Your task to perform on an android device: When is my next appointment? Image 0: 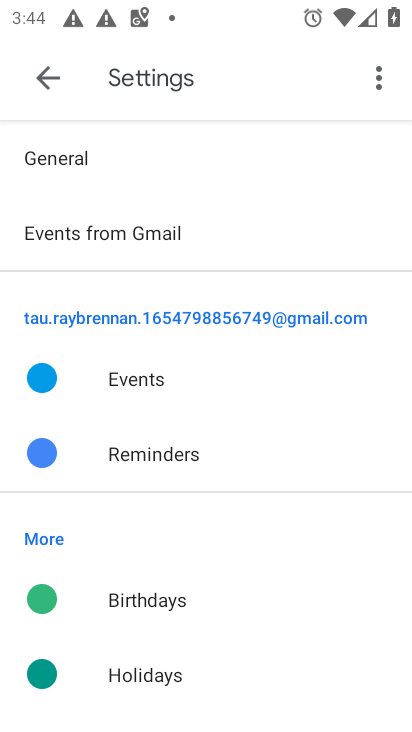
Step 0: press home button
Your task to perform on an android device: When is my next appointment? Image 1: 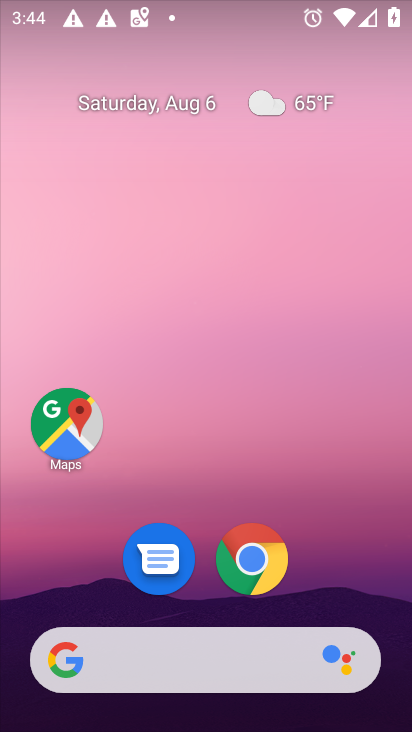
Step 1: drag from (220, 442) to (274, 0)
Your task to perform on an android device: When is my next appointment? Image 2: 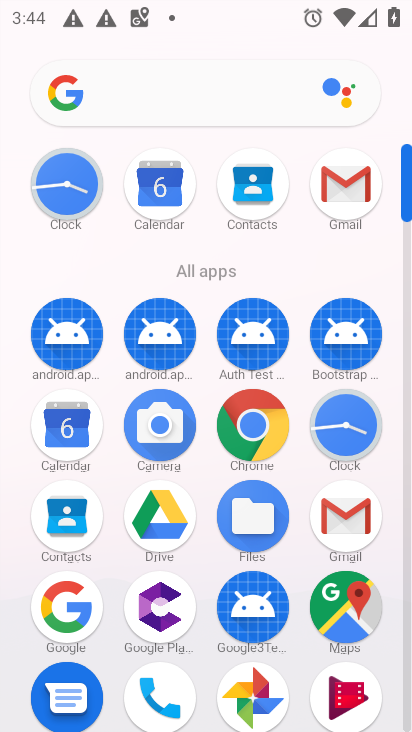
Step 2: click (75, 432)
Your task to perform on an android device: When is my next appointment? Image 3: 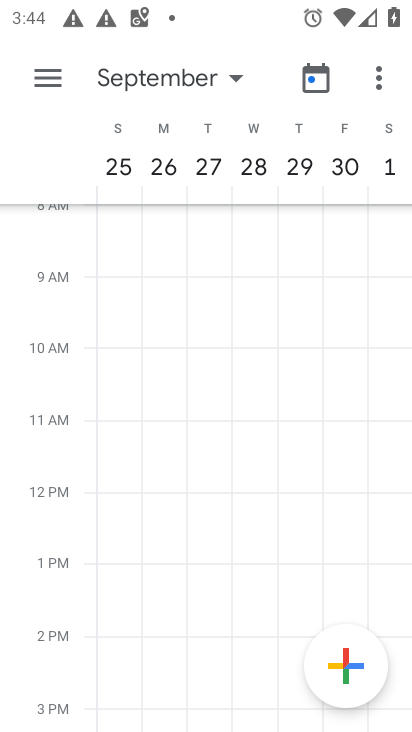
Step 3: drag from (130, 379) to (401, 451)
Your task to perform on an android device: When is my next appointment? Image 4: 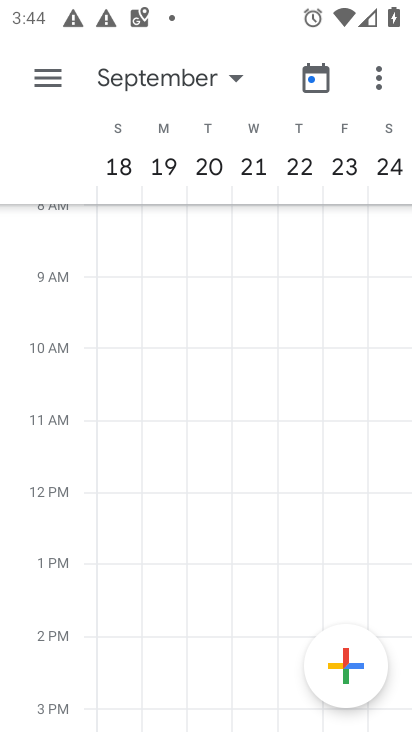
Step 4: drag from (126, 389) to (411, 436)
Your task to perform on an android device: When is my next appointment? Image 5: 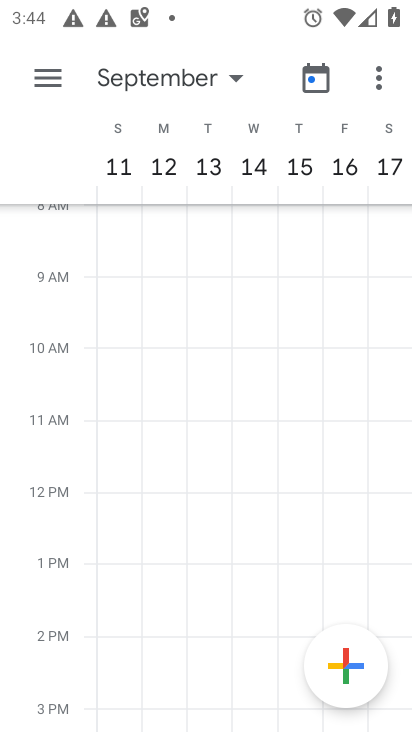
Step 5: drag from (109, 367) to (409, 411)
Your task to perform on an android device: When is my next appointment? Image 6: 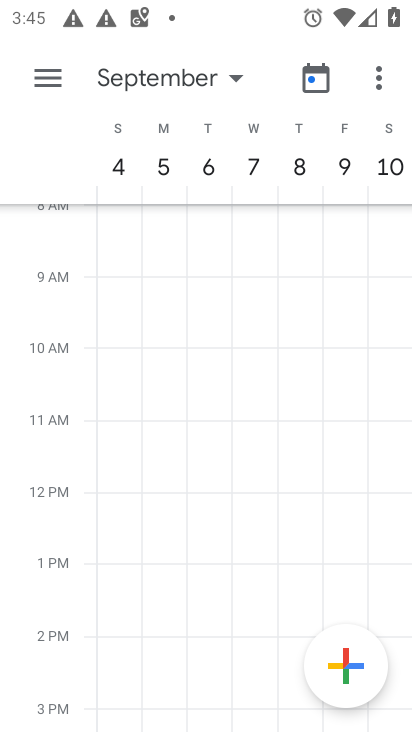
Step 6: drag from (113, 368) to (410, 399)
Your task to perform on an android device: When is my next appointment? Image 7: 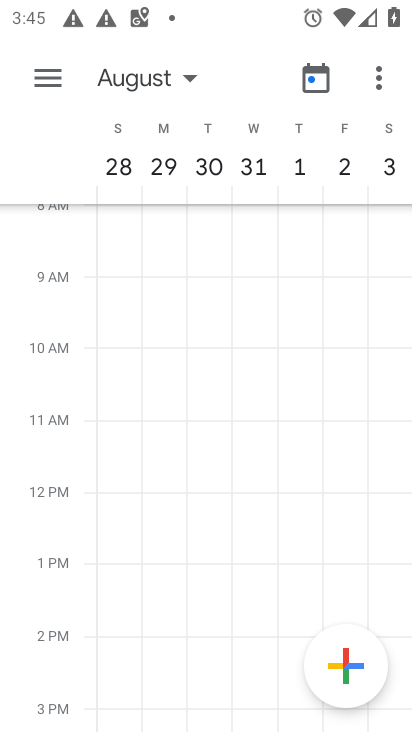
Step 7: drag from (115, 359) to (401, 401)
Your task to perform on an android device: When is my next appointment? Image 8: 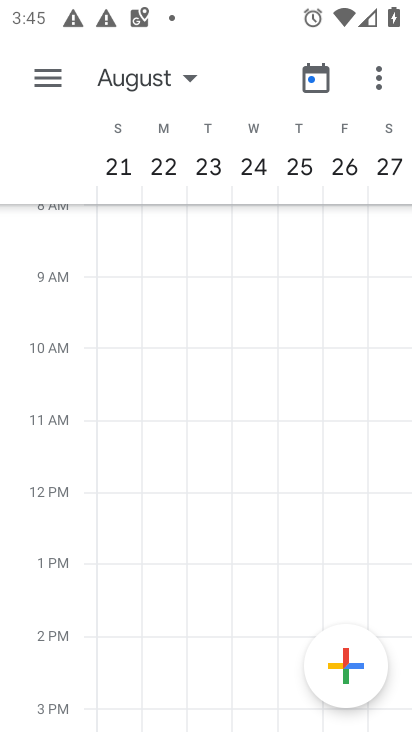
Step 8: drag from (120, 399) to (411, 398)
Your task to perform on an android device: When is my next appointment? Image 9: 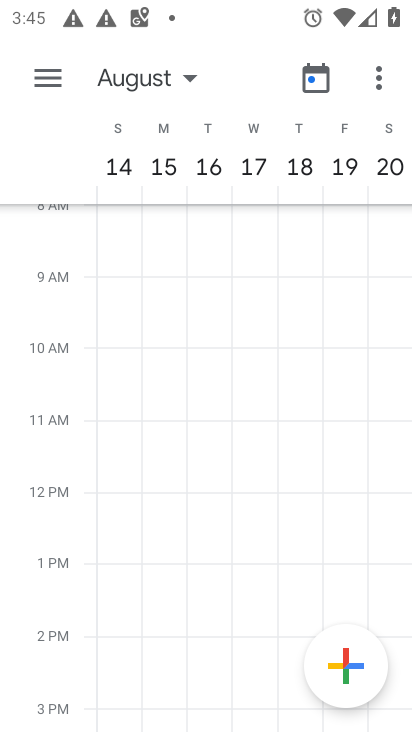
Step 9: drag from (110, 387) to (402, 436)
Your task to perform on an android device: When is my next appointment? Image 10: 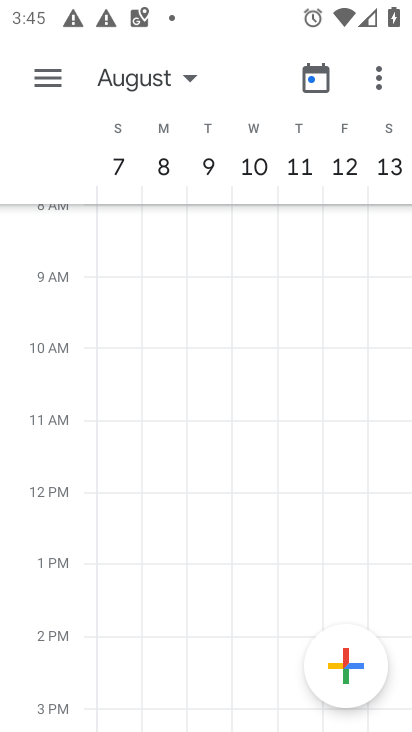
Step 10: drag from (120, 383) to (408, 401)
Your task to perform on an android device: When is my next appointment? Image 11: 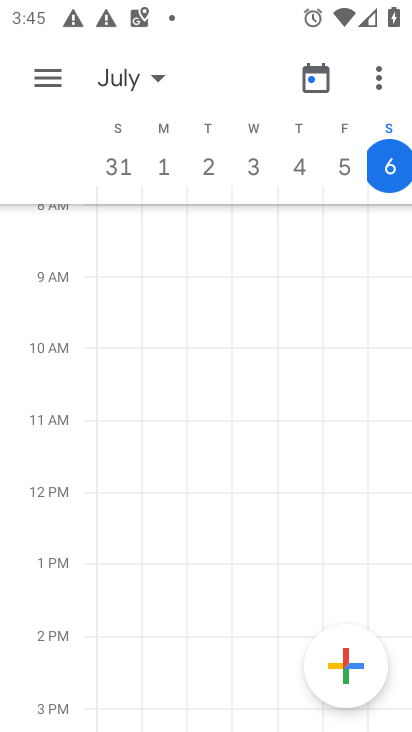
Step 11: click (385, 159)
Your task to perform on an android device: When is my next appointment? Image 12: 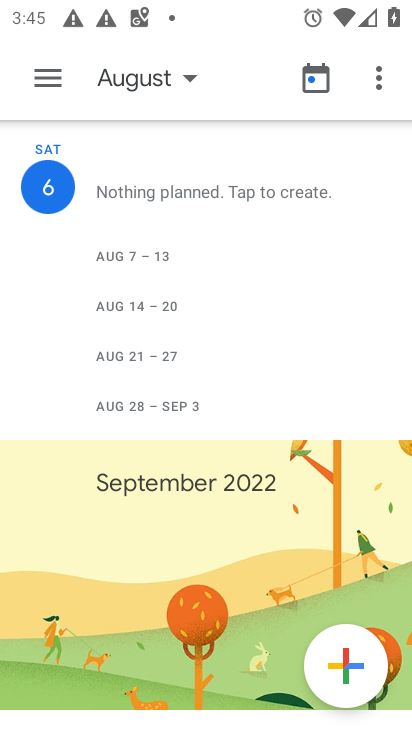
Step 12: task complete